Your task to perform on an android device: set default search engine in the chrome app Image 0: 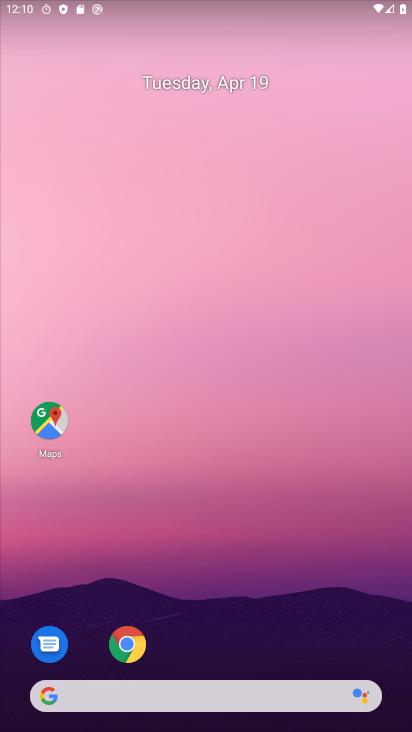
Step 0: drag from (251, 638) to (253, 229)
Your task to perform on an android device: set default search engine in the chrome app Image 1: 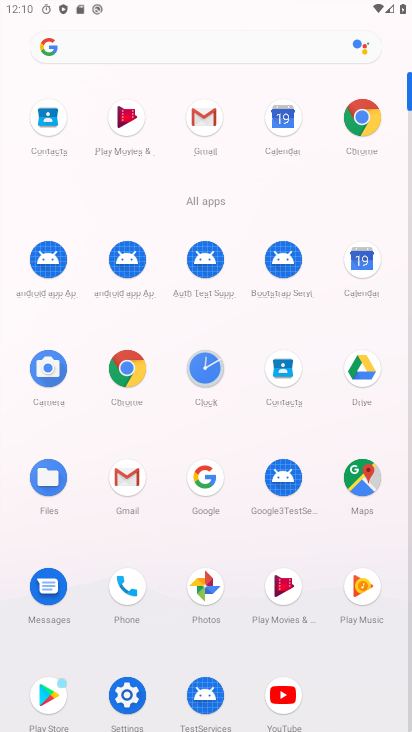
Step 1: click (122, 360)
Your task to perform on an android device: set default search engine in the chrome app Image 2: 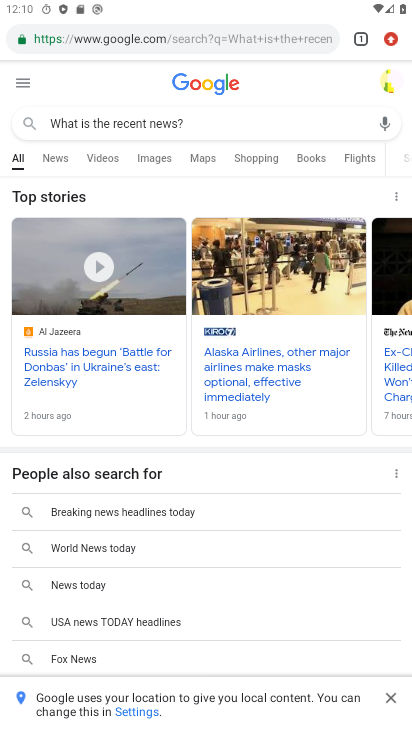
Step 2: click (390, 30)
Your task to perform on an android device: set default search engine in the chrome app Image 3: 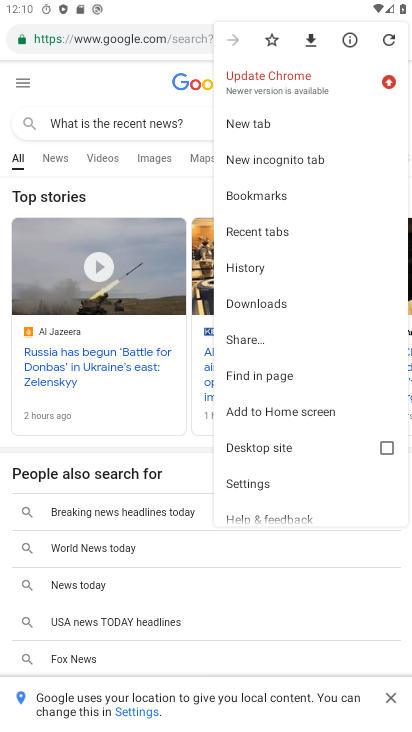
Step 3: click (263, 492)
Your task to perform on an android device: set default search engine in the chrome app Image 4: 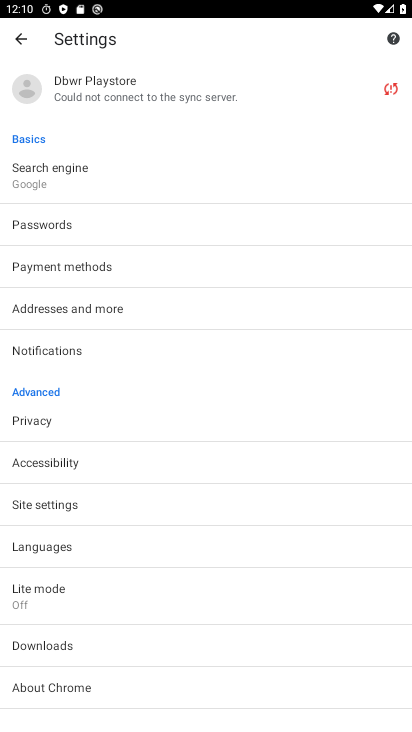
Step 4: click (106, 184)
Your task to perform on an android device: set default search engine in the chrome app Image 5: 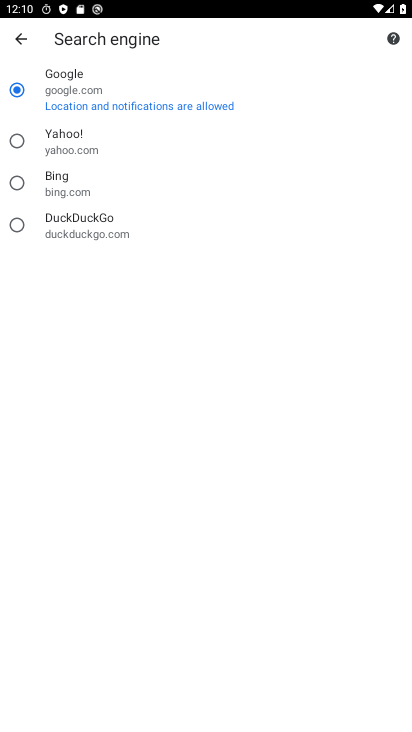
Step 5: click (58, 172)
Your task to perform on an android device: set default search engine in the chrome app Image 6: 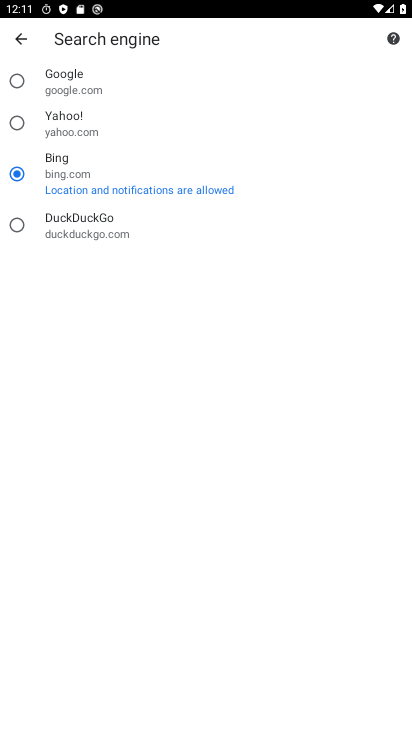
Step 6: task complete